Your task to perform on an android device: Open eBay Image 0: 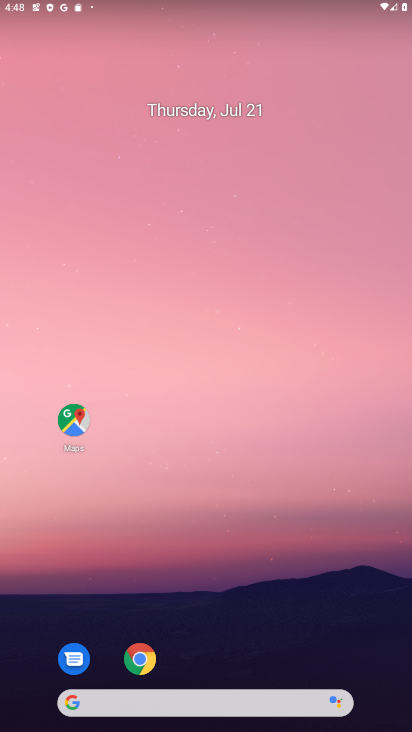
Step 0: click (170, 694)
Your task to perform on an android device: Open eBay Image 1: 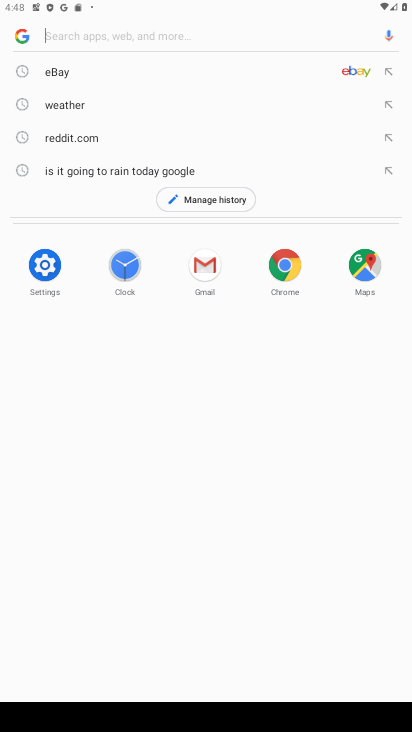
Step 1: click (62, 74)
Your task to perform on an android device: Open eBay Image 2: 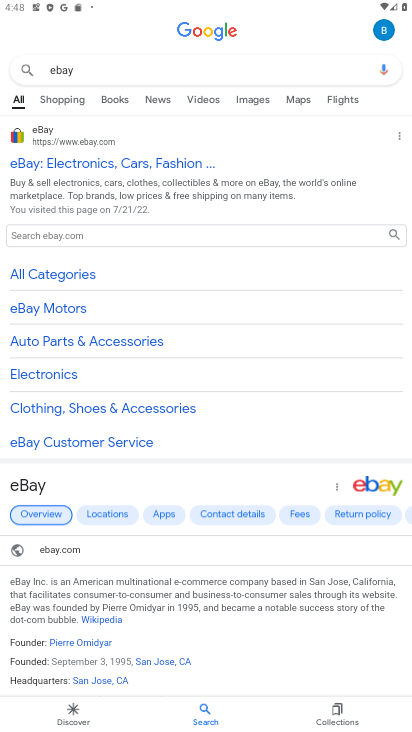
Step 2: click (89, 161)
Your task to perform on an android device: Open eBay Image 3: 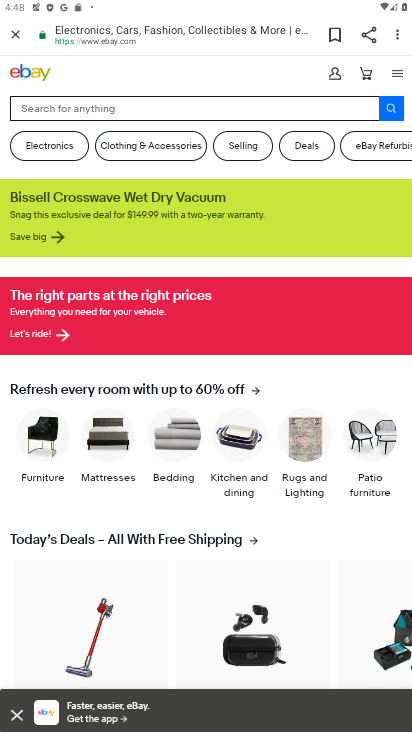
Step 3: task complete